Your task to perform on an android device: star an email in the gmail app Image 0: 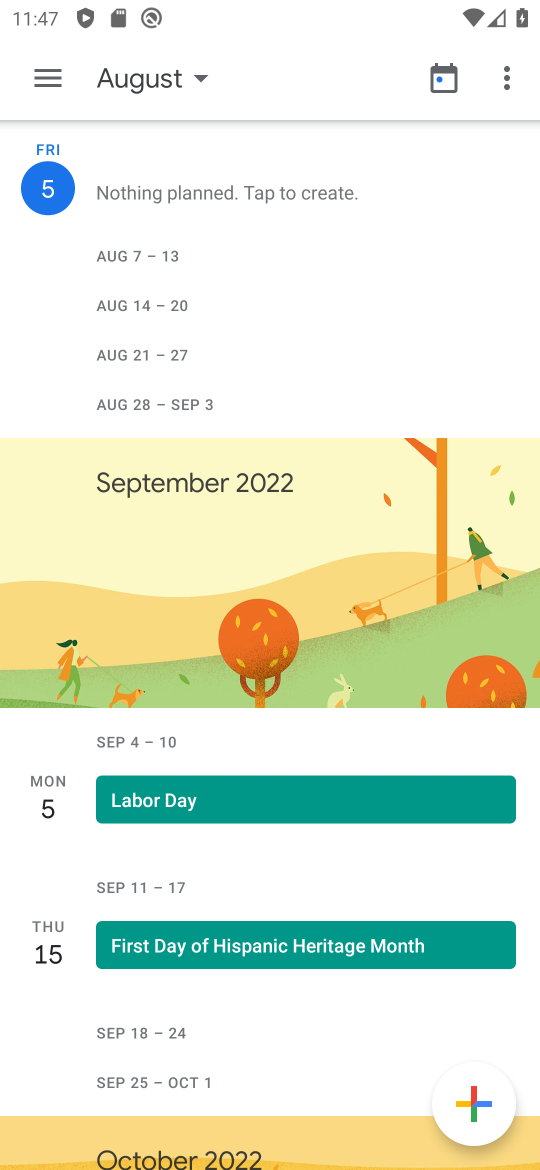
Step 0: press home button
Your task to perform on an android device: star an email in the gmail app Image 1: 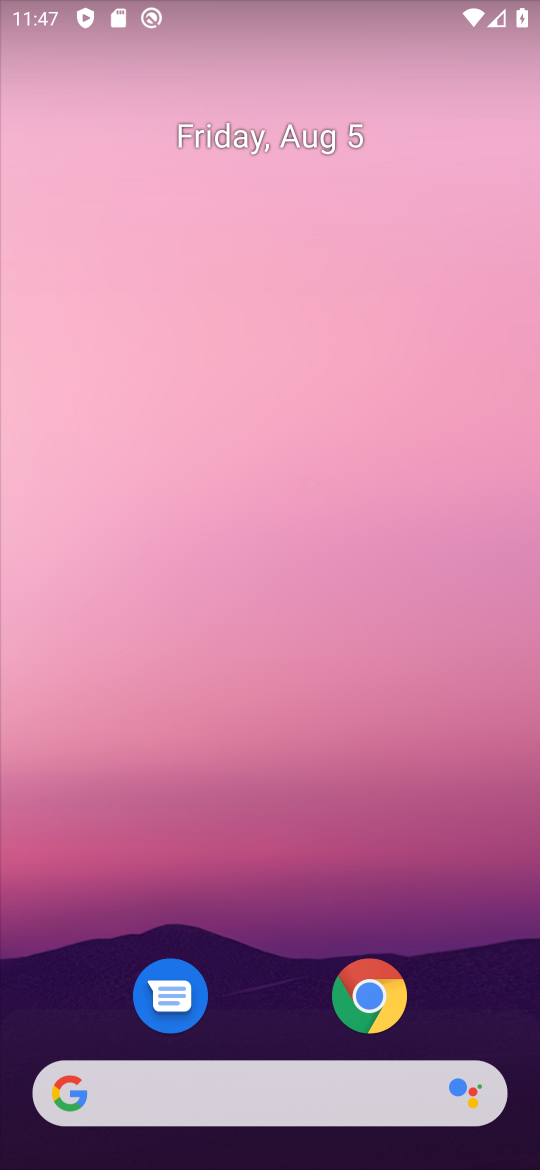
Step 1: drag from (256, 1051) to (335, 687)
Your task to perform on an android device: star an email in the gmail app Image 2: 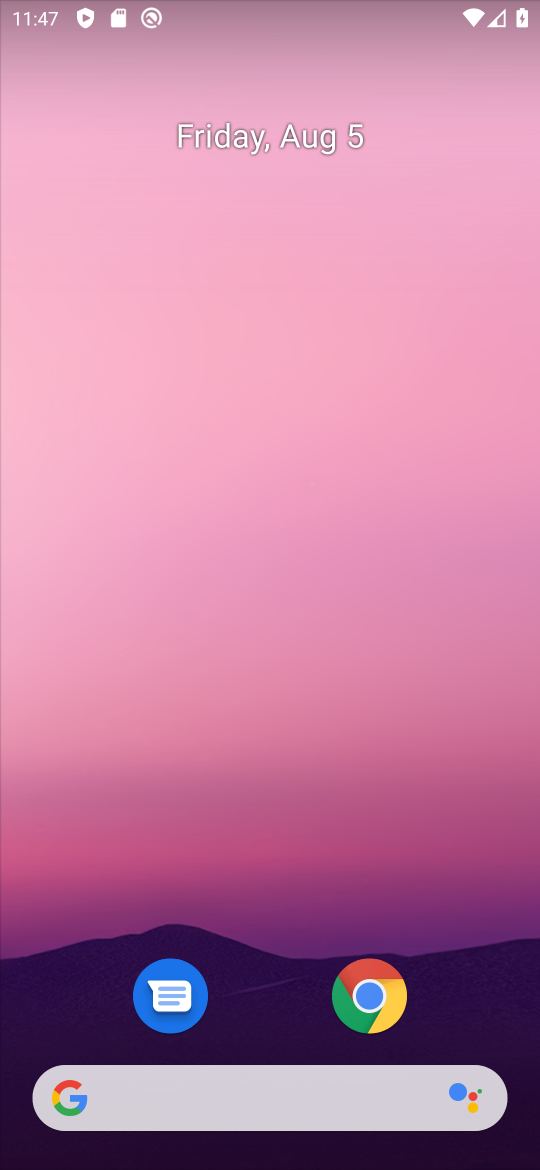
Step 2: drag from (291, 910) to (315, 584)
Your task to perform on an android device: star an email in the gmail app Image 3: 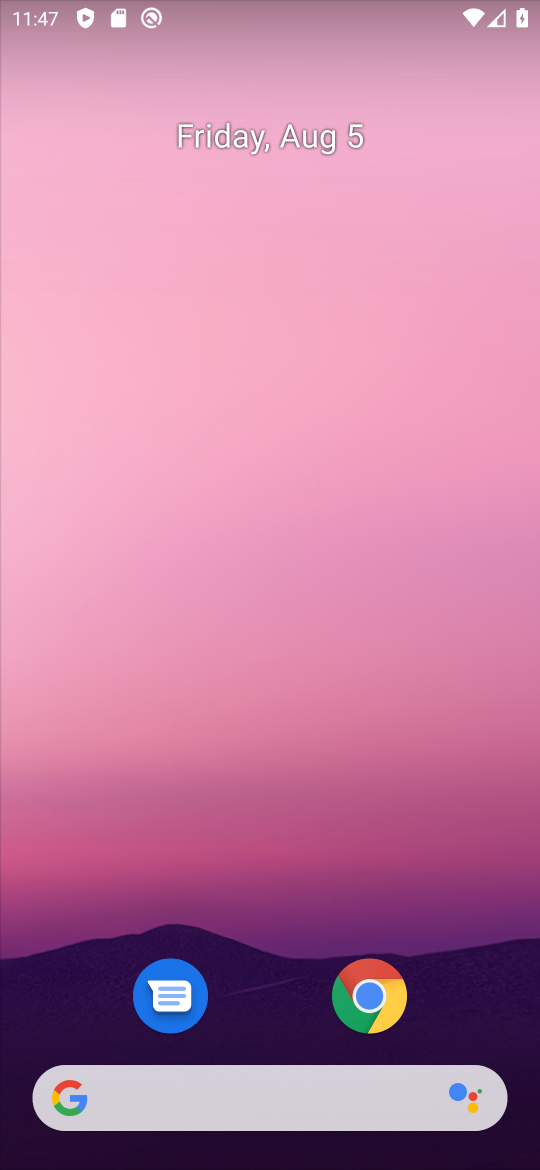
Step 3: drag from (220, 1006) to (207, 643)
Your task to perform on an android device: star an email in the gmail app Image 4: 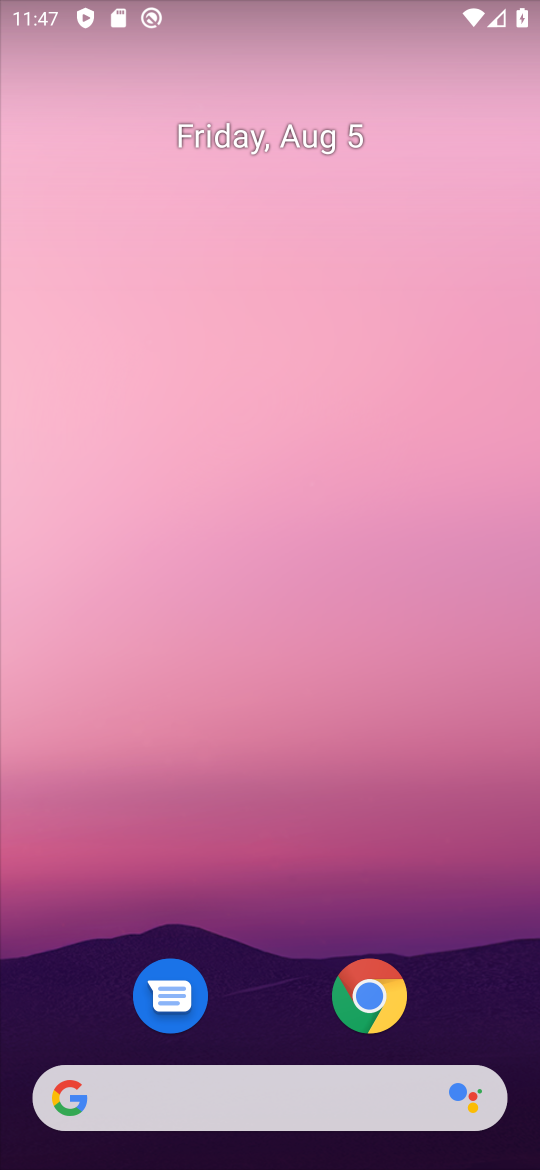
Step 4: drag from (264, 1065) to (359, 549)
Your task to perform on an android device: star an email in the gmail app Image 5: 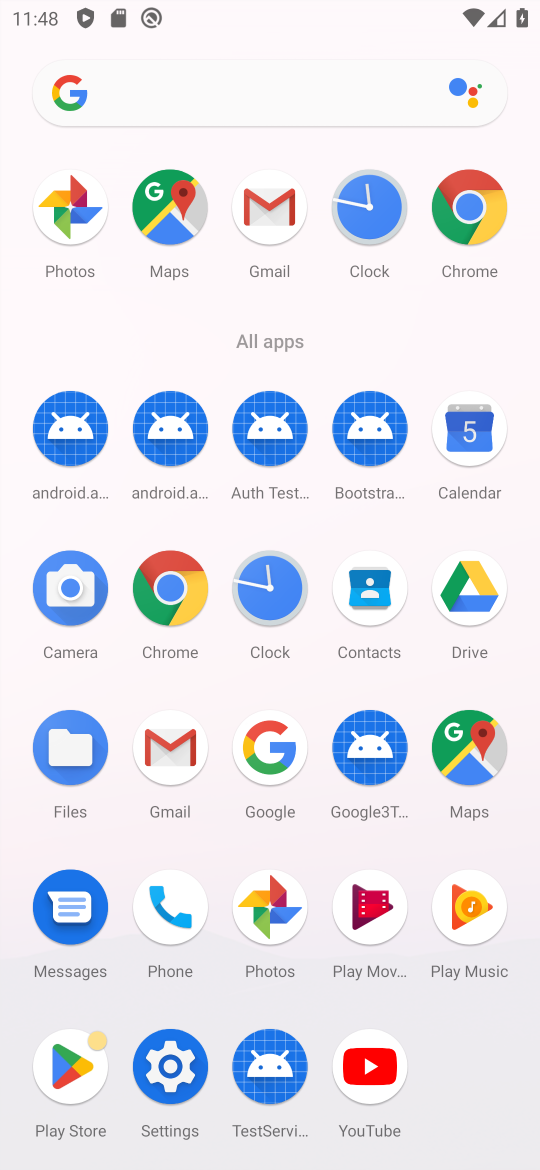
Step 5: click (177, 760)
Your task to perform on an android device: star an email in the gmail app Image 6: 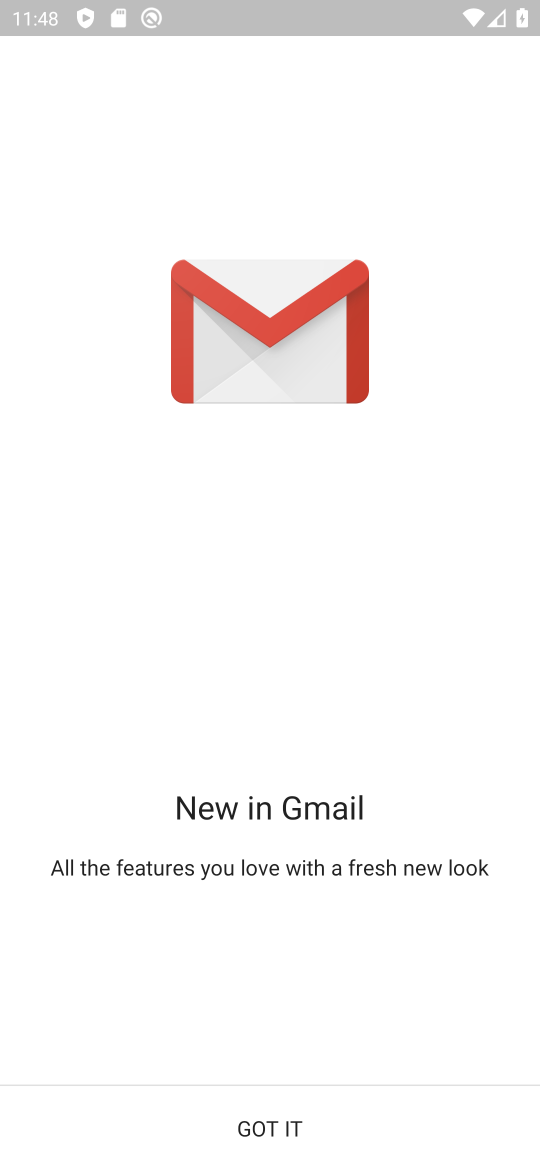
Step 6: click (267, 1123)
Your task to perform on an android device: star an email in the gmail app Image 7: 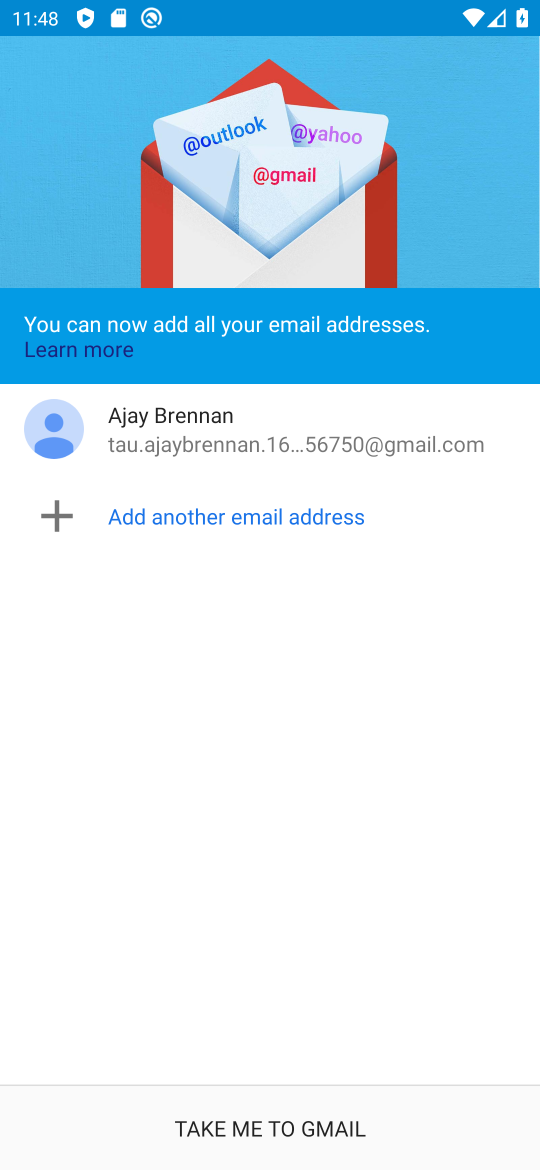
Step 7: click (267, 1123)
Your task to perform on an android device: star an email in the gmail app Image 8: 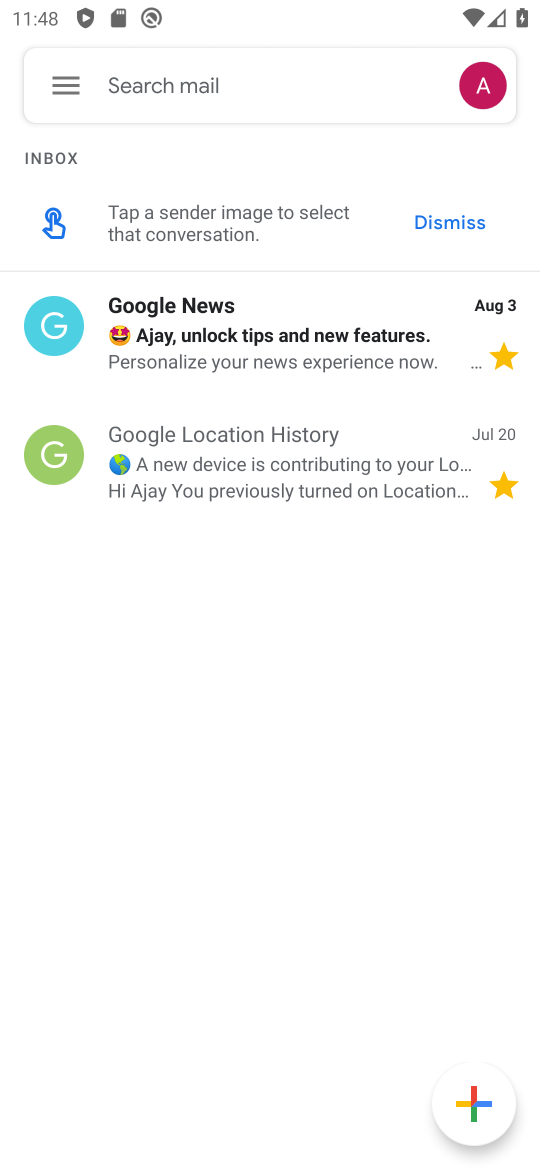
Step 8: task complete